Your task to perform on an android device: Go to Amazon Image 0: 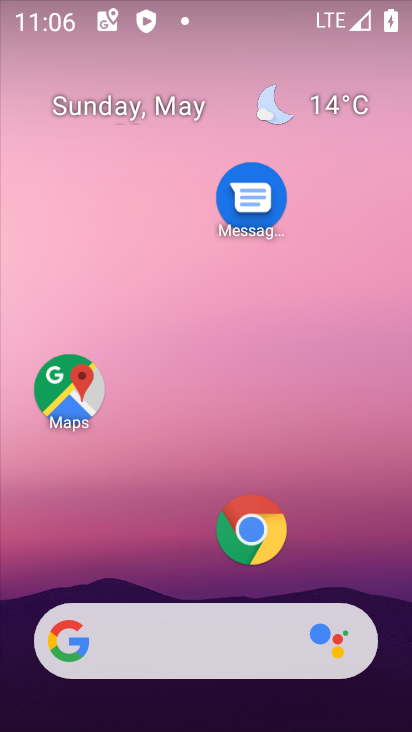
Step 0: click (239, 517)
Your task to perform on an android device: Go to Amazon Image 1: 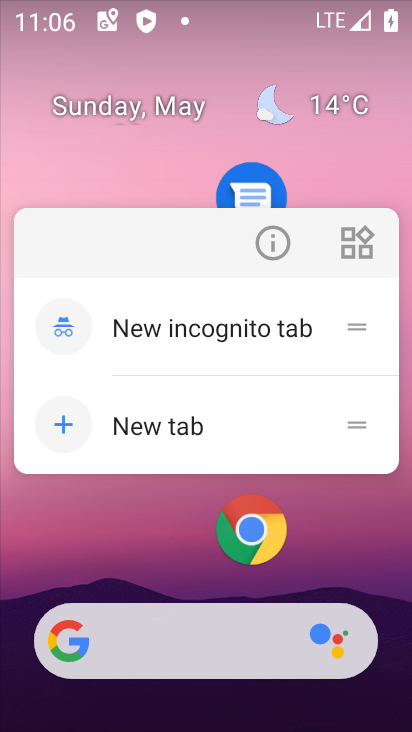
Step 1: click (241, 524)
Your task to perform on an android device: Go to Amazon Image 2: 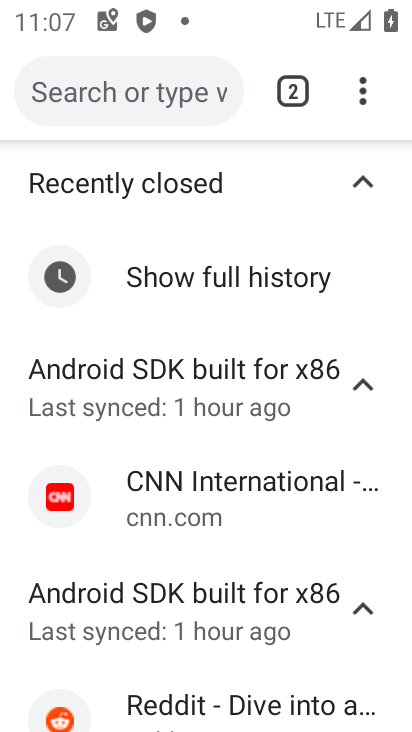
Step 2: drag from (198, 694) to (237, 232)
Your task to perform on an android device: Go to Amazon Image 3: 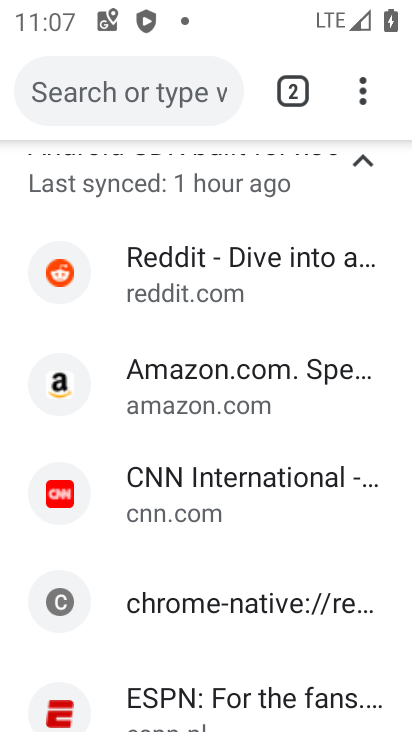
Step 3: click (252, 434)
Your task to perform on an android device: Go to Amazon Image 4: 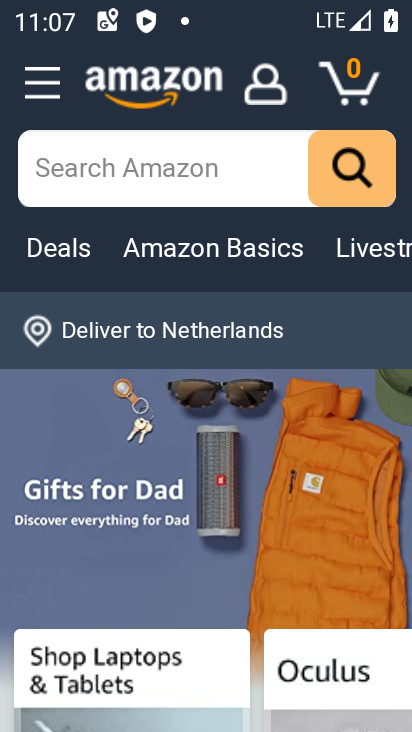
Step 4: task complete